Your task to perform on an android device: delete a single message in the gmail app Image 0: 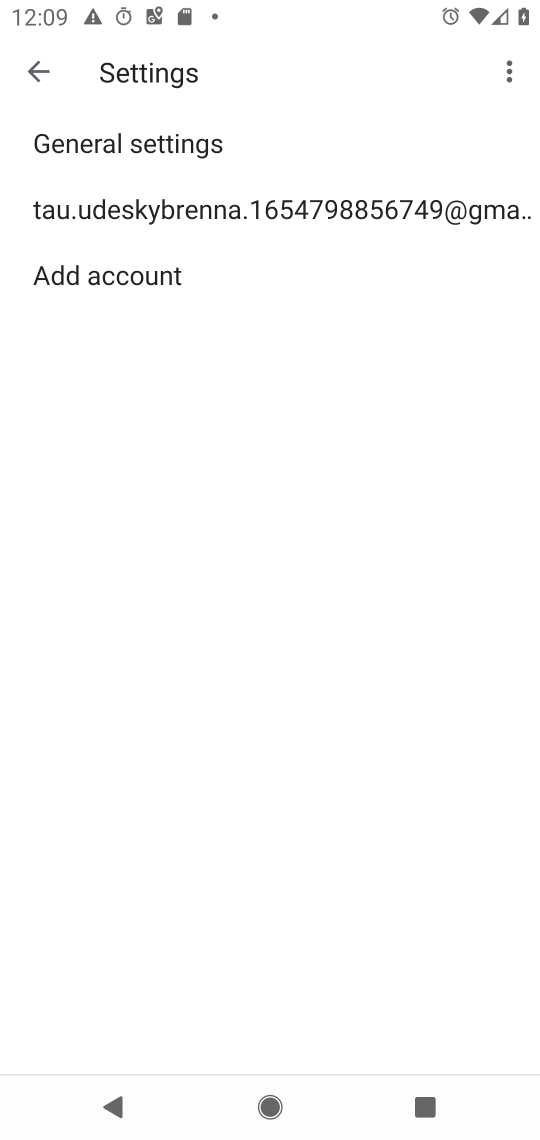
Step 0: press home button
Your task to perform on an android device: delete a single message in the gmail app Image 1: 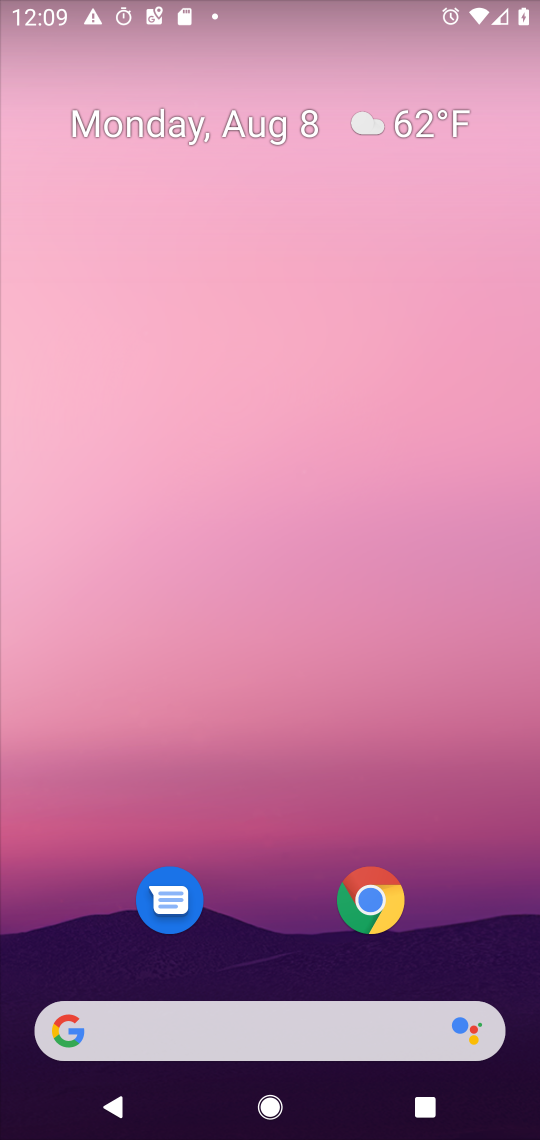
Step 1: drag from (280, 946) to (253, 141)
Your task to perform on an android device: delete a single message in the gmail app Image 2: 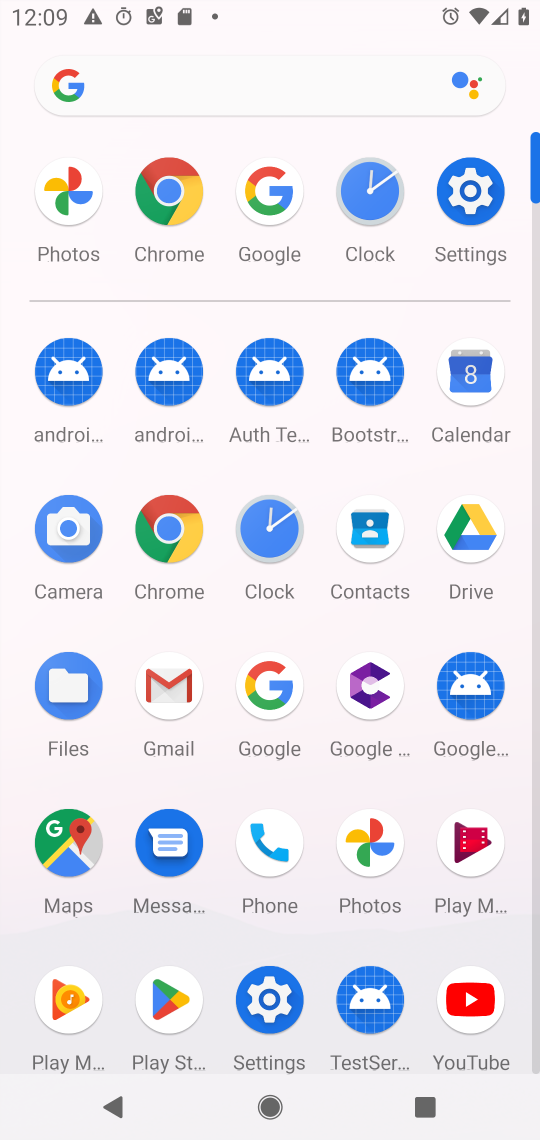
Step 2: click (172, 668)
Your task to perform on an android device: delete a single message in the gmail app Image 3: 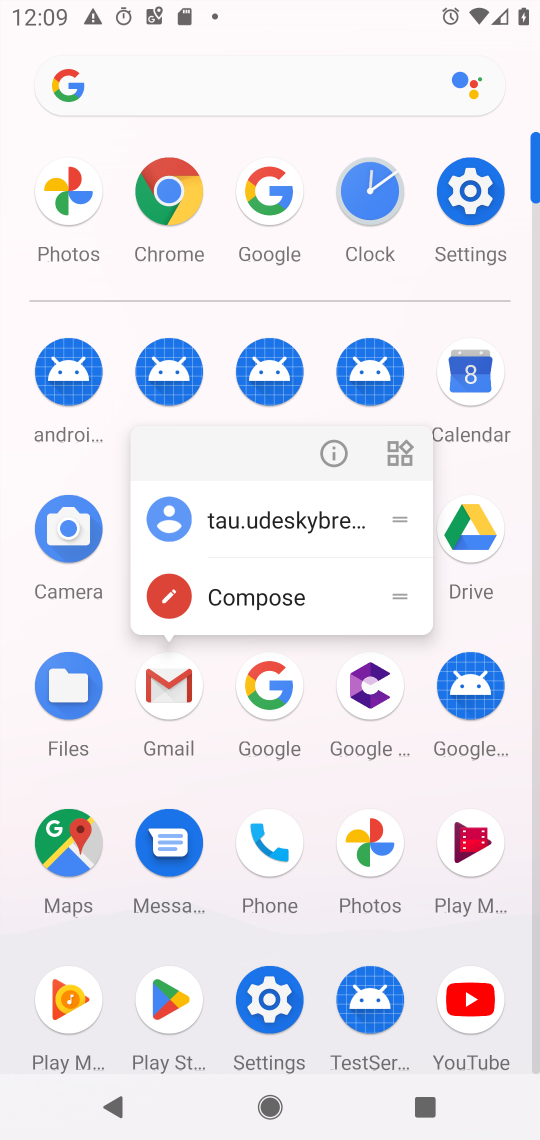
Step 3: click (170, 674)
Your task to perform on an android device: delete a single message in the gmail app Image 4: 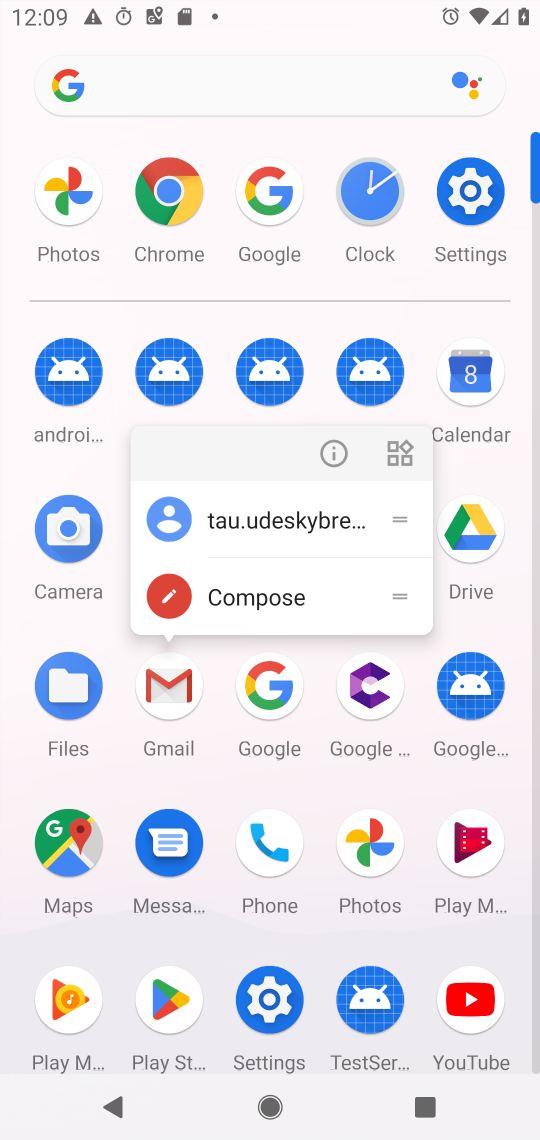
Step 4: click (166, 682)
Your task to perform on an android device: delete a single message in the gmail app Image 5: 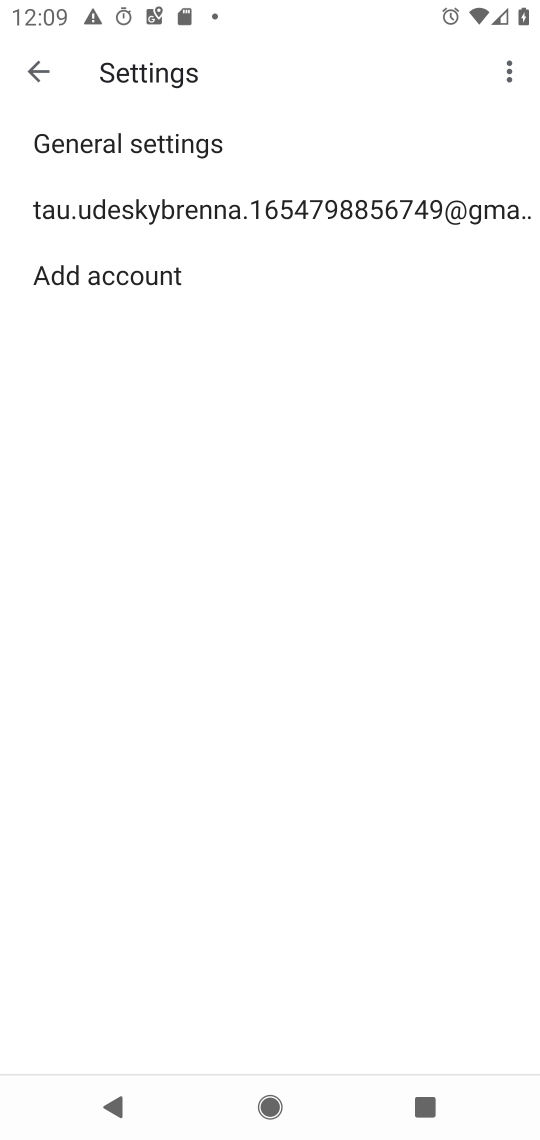
Step 5: click (31, 72)
Your task to perform on an android device: delete a single message in the gmail app Image 6: 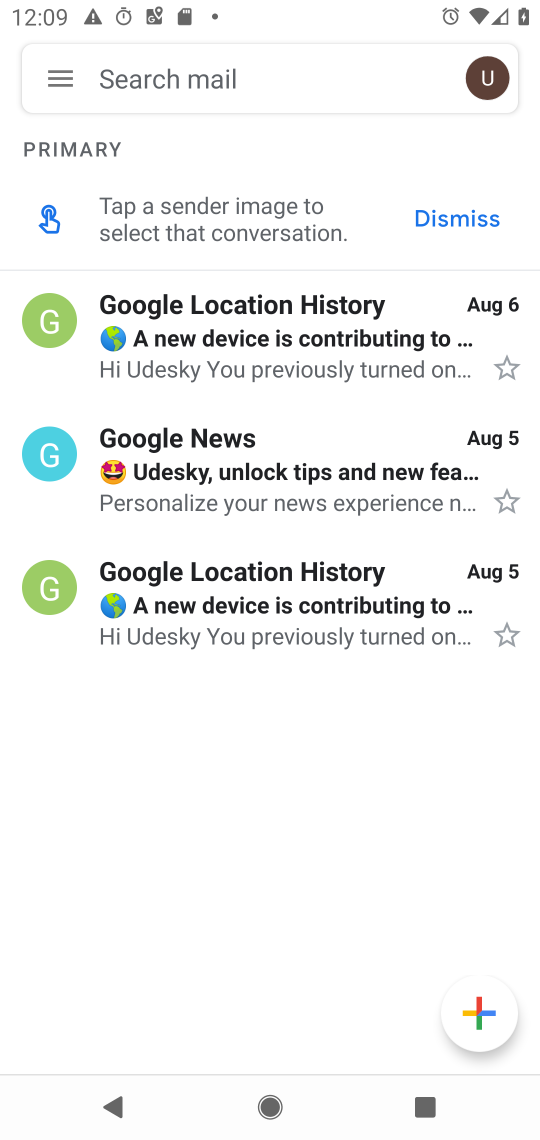
Step 6: click (52, 449)
Your task to perform on an android device: delete a single message in the gmail app Image 7: 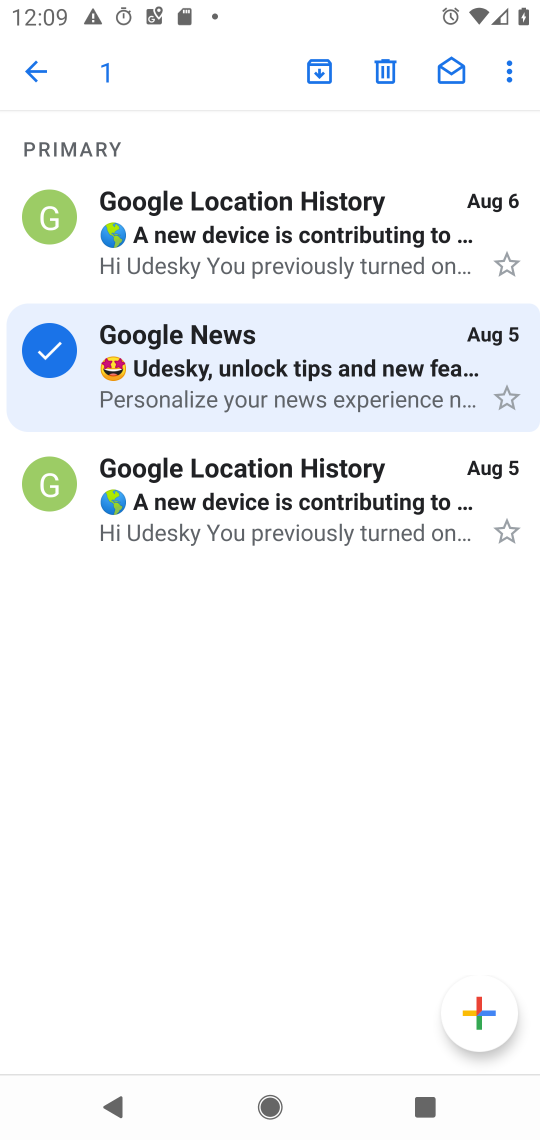
Step 7: click (389, 68)
Your task to perform on an android device: delete a single message in the gmail app Image 8: 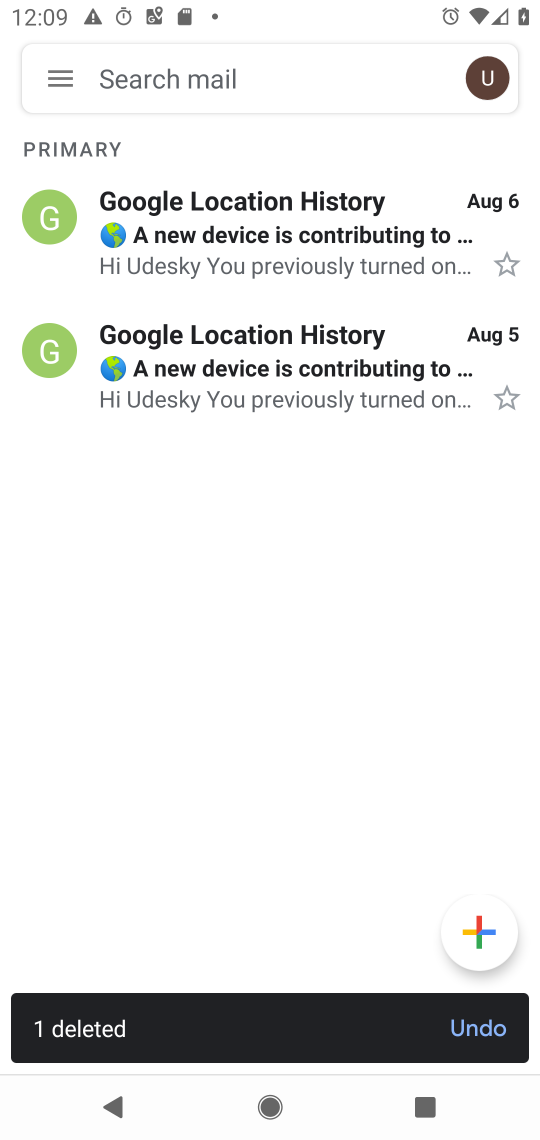
Step 8: task complete